Your task to perform on an android device: Is it going to rain tomorrow? Image 0: 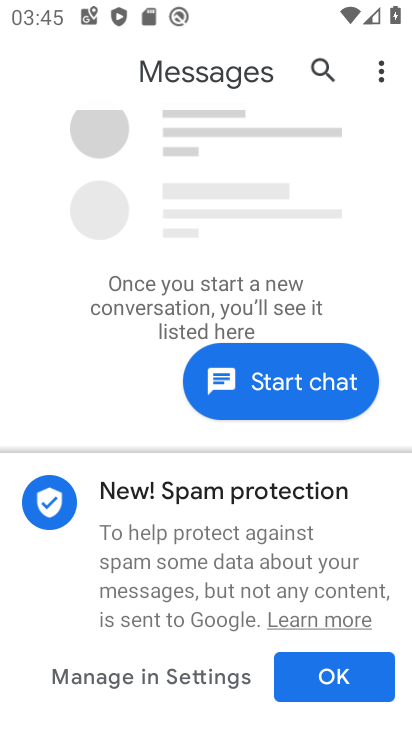
Step 0: press home button
Your task to perform on an android device: Is it going to rain tomorrow? Image 1: 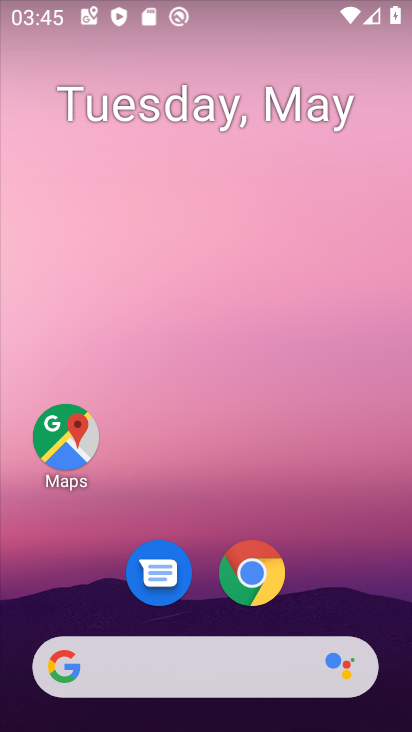
Step 1: drag from (129, 469) to (233, 23)
Your task to perform on an android device: Is it going to rain tomorrow? Image 2: 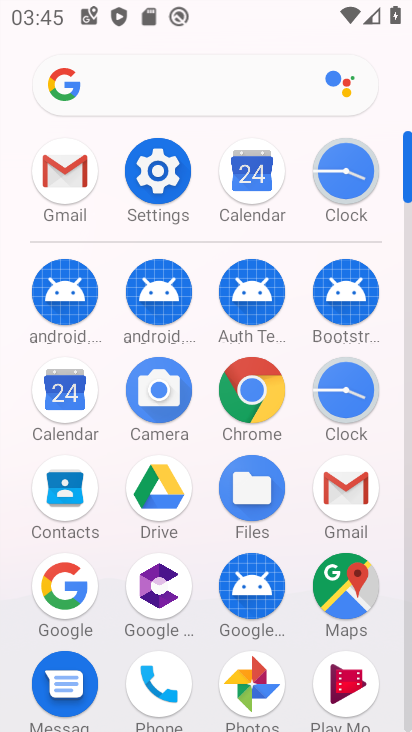
Step 2: click (72, 396)
Your task to perform on an android device: Is it going to rain tomorrow? Image 3: 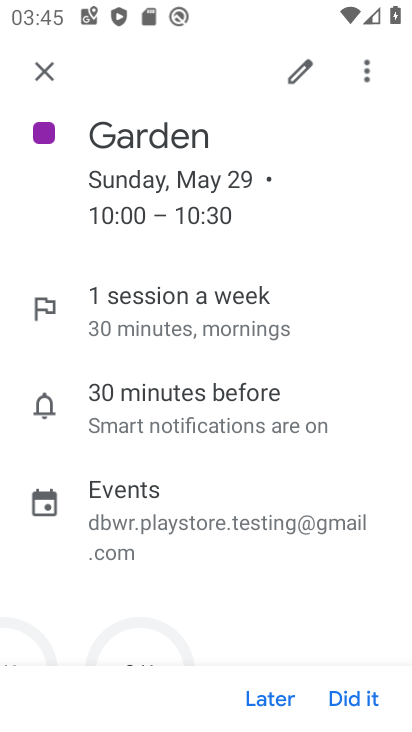
Step 3: click (44, 56)
Your task to perform on an android device: Is it going to rain tomorrow? Image 4: 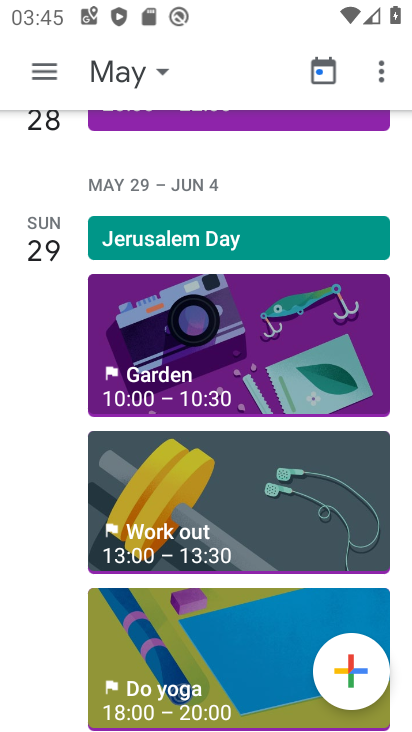
Step 4: drag from (217, 286) to (268, 170)
Your task to perform on an android device: Is it going to rain tomorrow? Image 5: 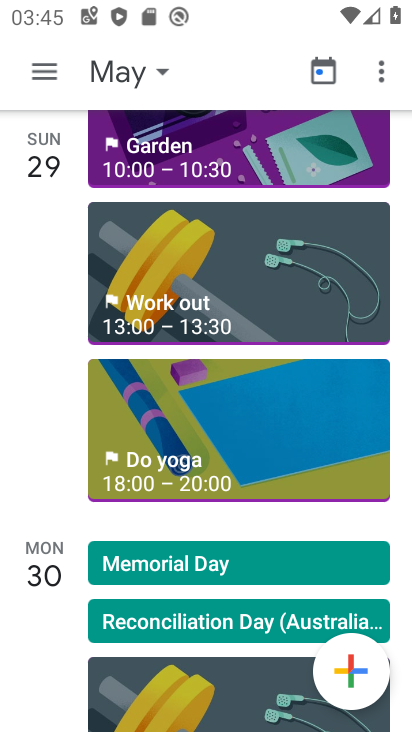
Step 5: drag from (153, 650) to (251, 123)
Your task to perform on an android device: Is it going to rain tomorrow? Image 6: 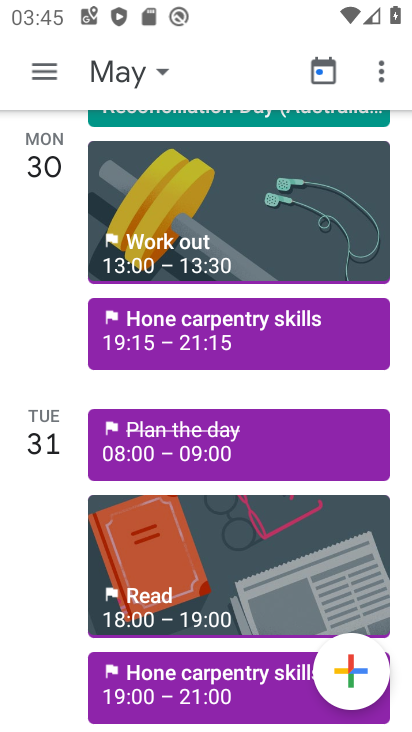
Step 6: drag from (168, 596) to (255, 187)
Your task to perform on an android device: Is it going to rain tomorrow? Image 7: 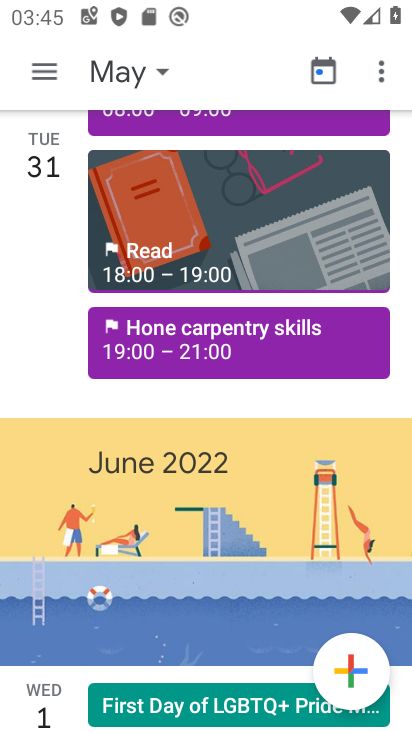
Step 7: drag from (255, 187) to (187, 653)
Your task to perform on an android device: Is it going to rain tomorrow? Image 8: 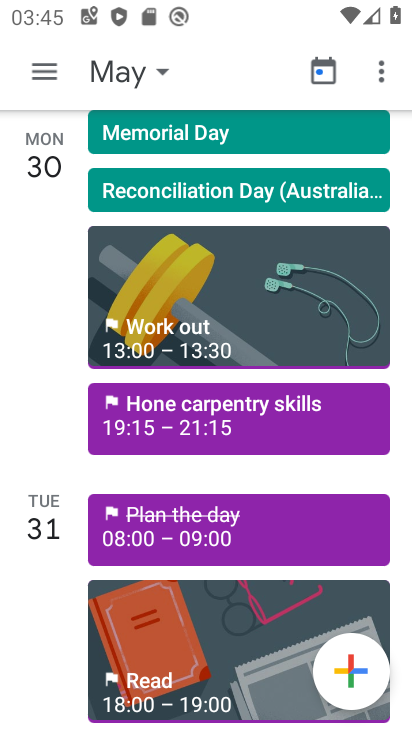
Step 8: press home button
Your task to perform on an android device: Is it going to rain tomorrow? Image 9: 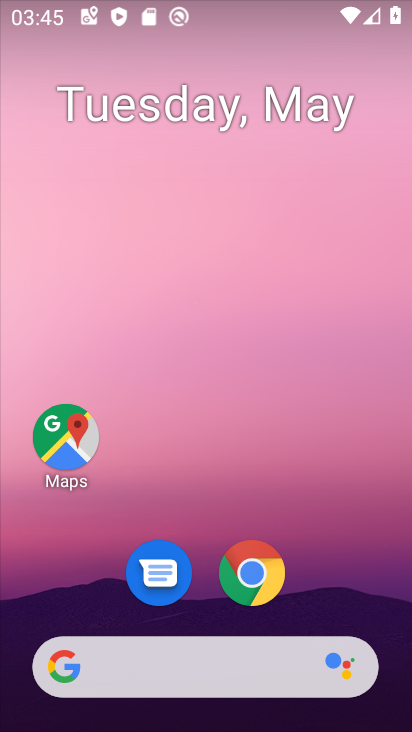
Step 9: click (143, 642)
Your task to perform on an android device: Is it going to rain tomorrow? Image 10: 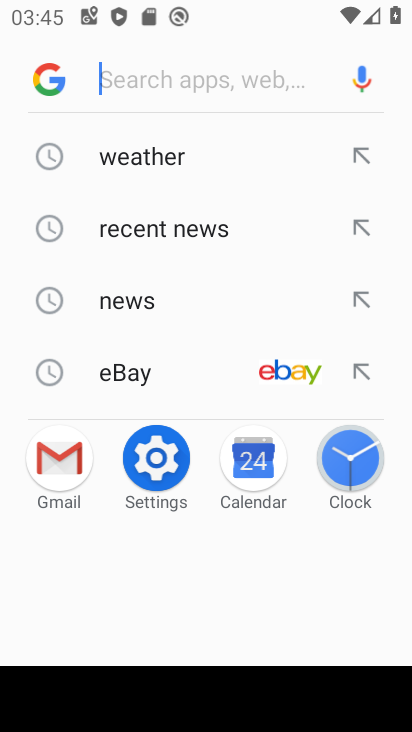
Step 10: click (144, 148)
Your task to perform on an android device: Is it going to rain tomorrow? Image 11: 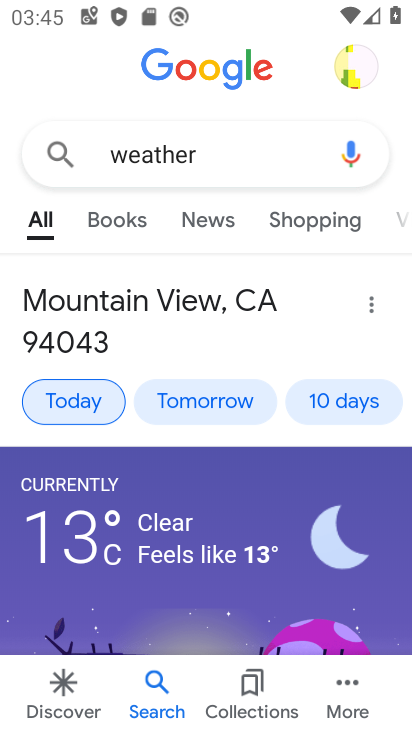
Step 11: click (226, 388)
Your task to perform on an android device: Is it going to rain tomorrow? Image 12: 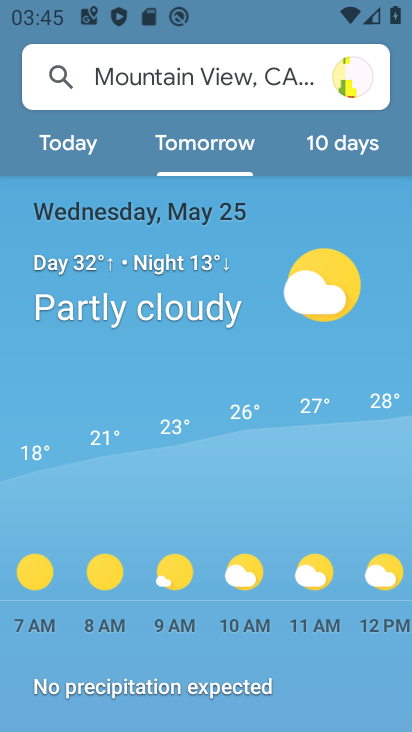
Step 12: task complete